Your task to perform on an android device: Go to settings Image 0: 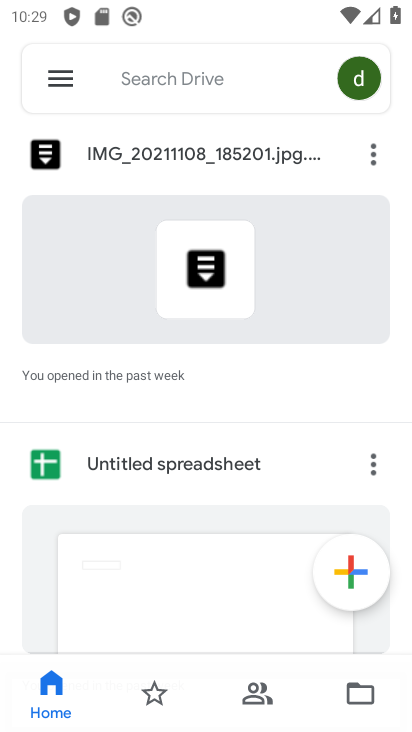
Step 0: press home button
Your task to perform on an android device: Go to settings Image 1: 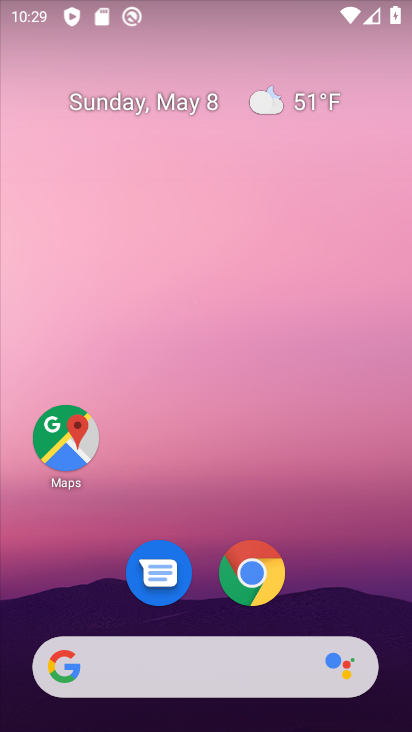
Step 1: drag from (182, 629) to (183, 203)
Your task to perform on an android device: Go to settings Image 2: 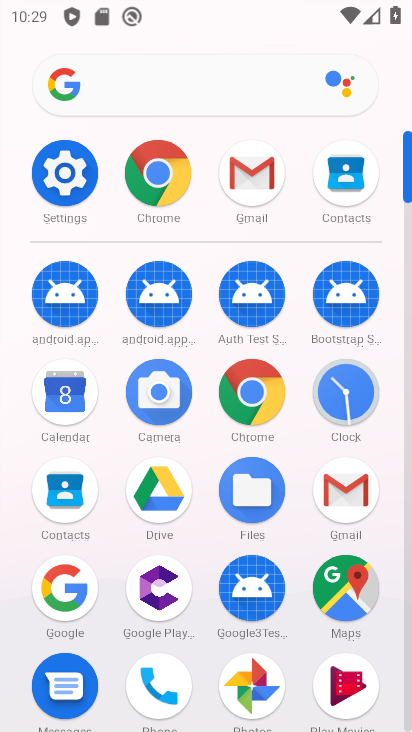
Step 2: click (70, 174)
Your task to perform on an android device: Go to settings Image 3: 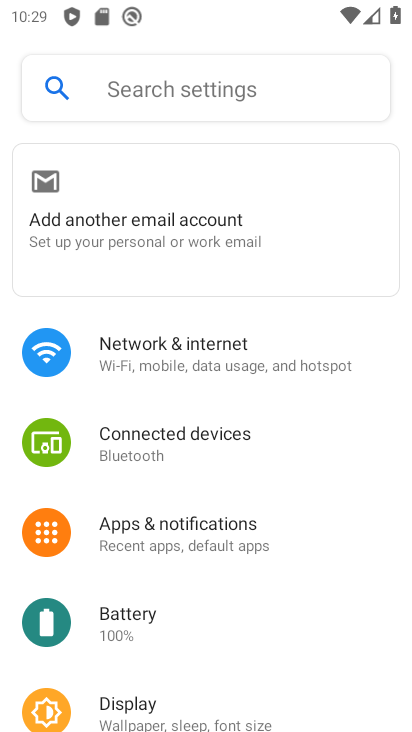
Step 3: task complete